Your task to perform on an android device: Open the calendar app, open the side menu, and click the "Day" option Image 0: 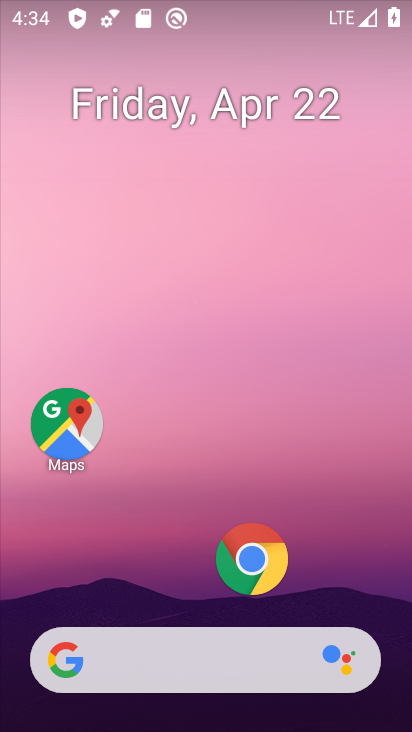
Step 0: drag from (142, 534) to (248, 161)
Your task to perform on an android device: Open the calendar app, open the side menu, and click the "Day" option Image 1: 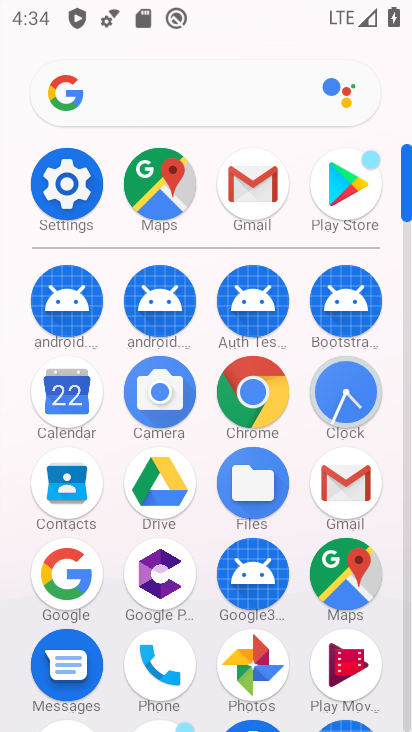
Step 1: click (66, 413)
Your task to perform on an android device: Open the calendar app, open the side menu, and click the "Day" option Image 2: 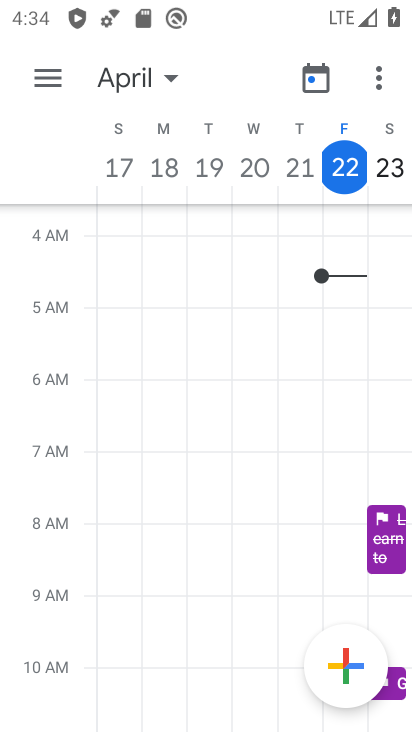
Step 2: click (34, 73)
Your task to perform on an android device: Open the calendar app, open the side menu, and click the "Day" option Image 3: 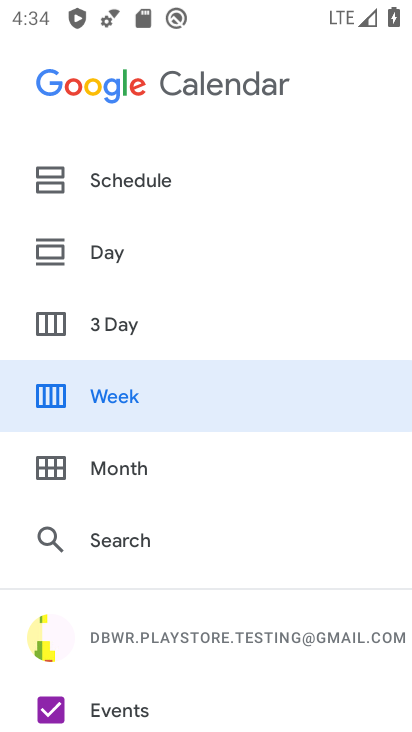
Step 3: click (101, 260)
Your task to perform on an android device: Open the calendar app, open the side menu, and click the "Day" option Image 4: 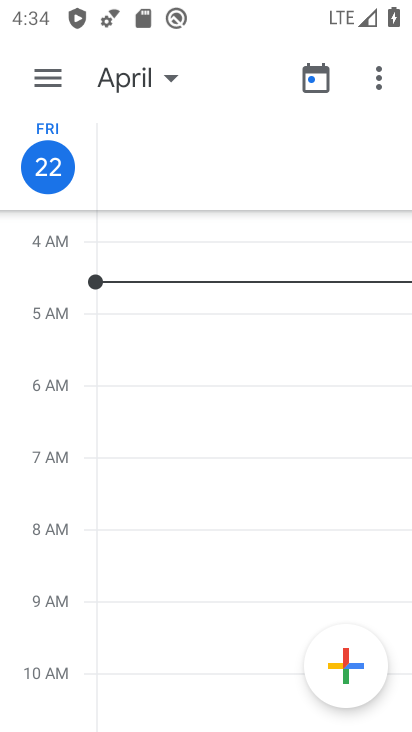
Step 4: task complete